Your task to perform on an android device: change the clock display to digital Image 0: 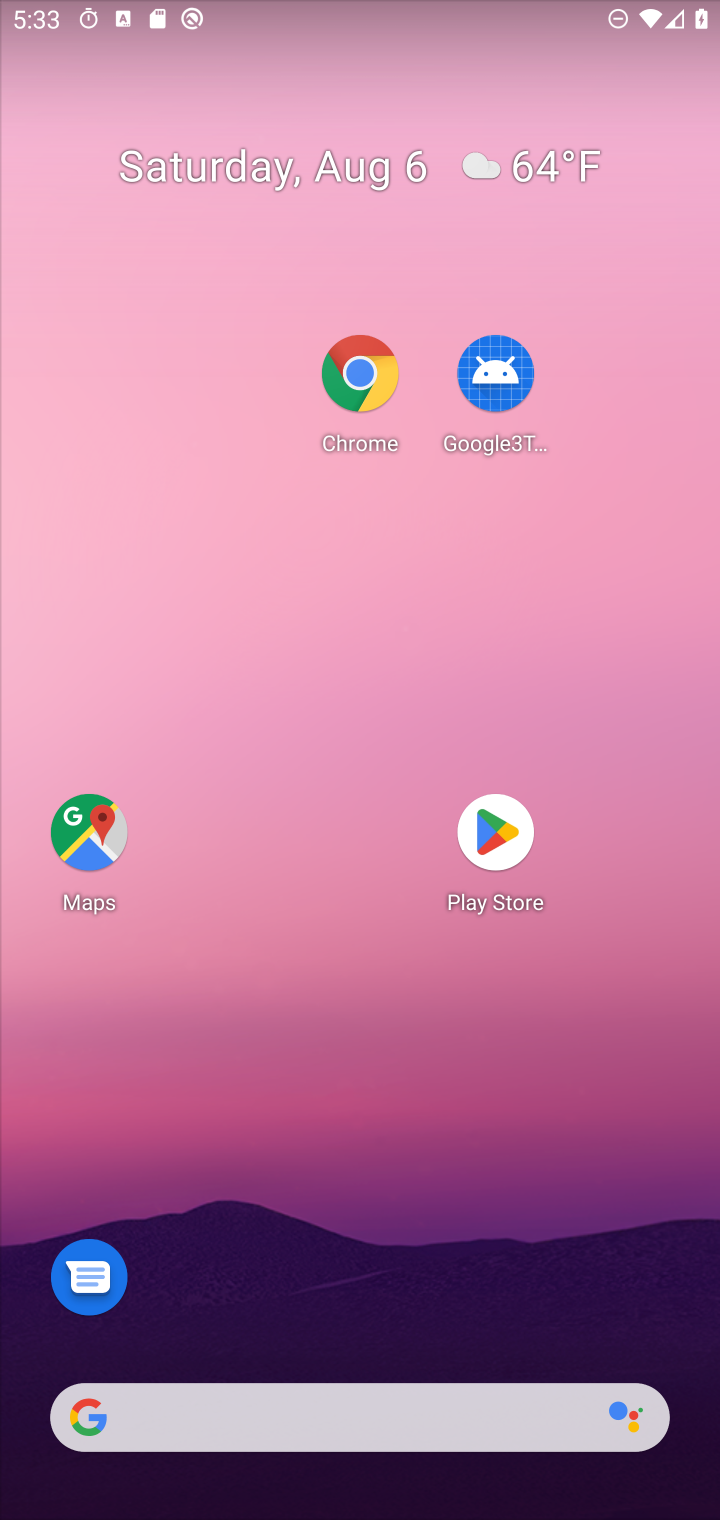
Step 0: drag from (439, 1448) to (439, 31)
Your task to perform on an android device: change the clock display to digital Image 1: 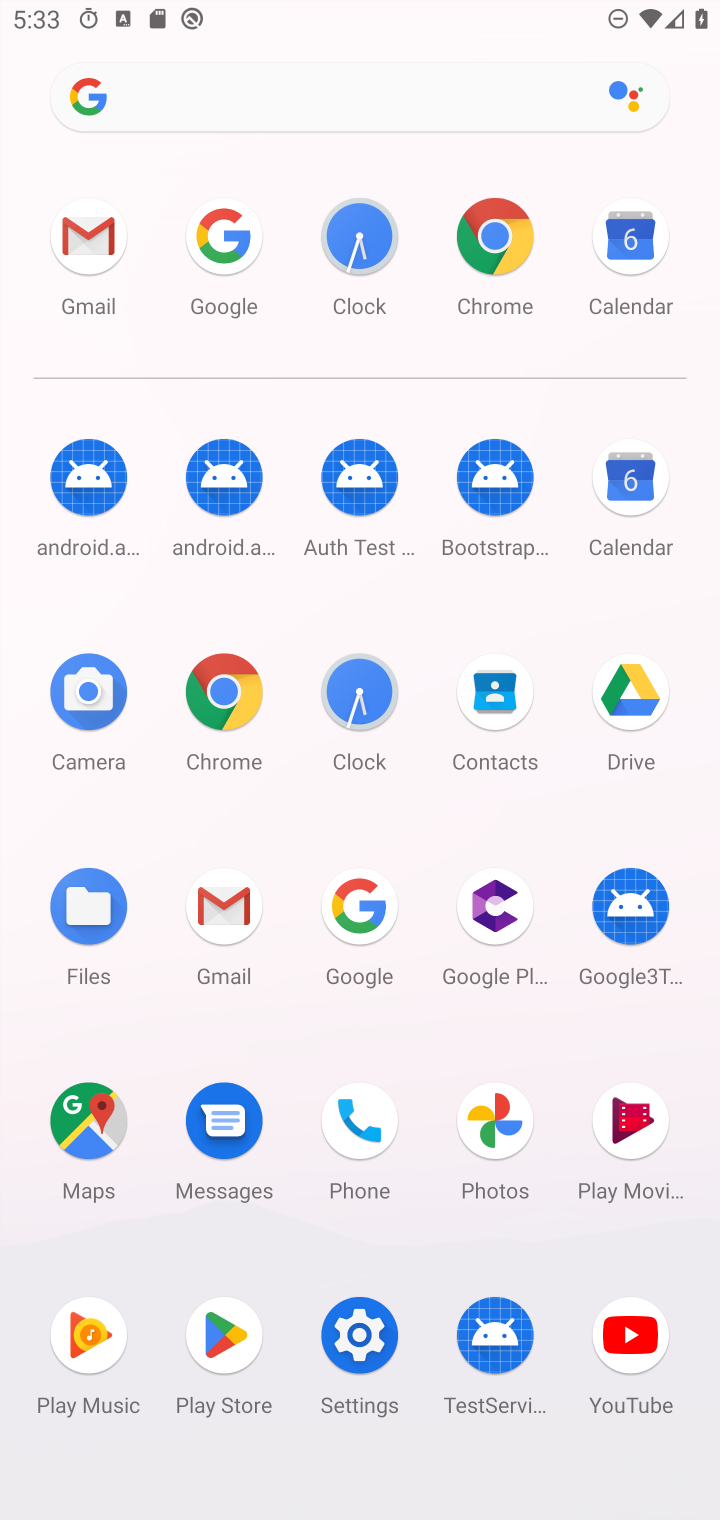
Step 1: click (366, 673)
Your task to perform on an android device: change the clock display to digital Image 2: 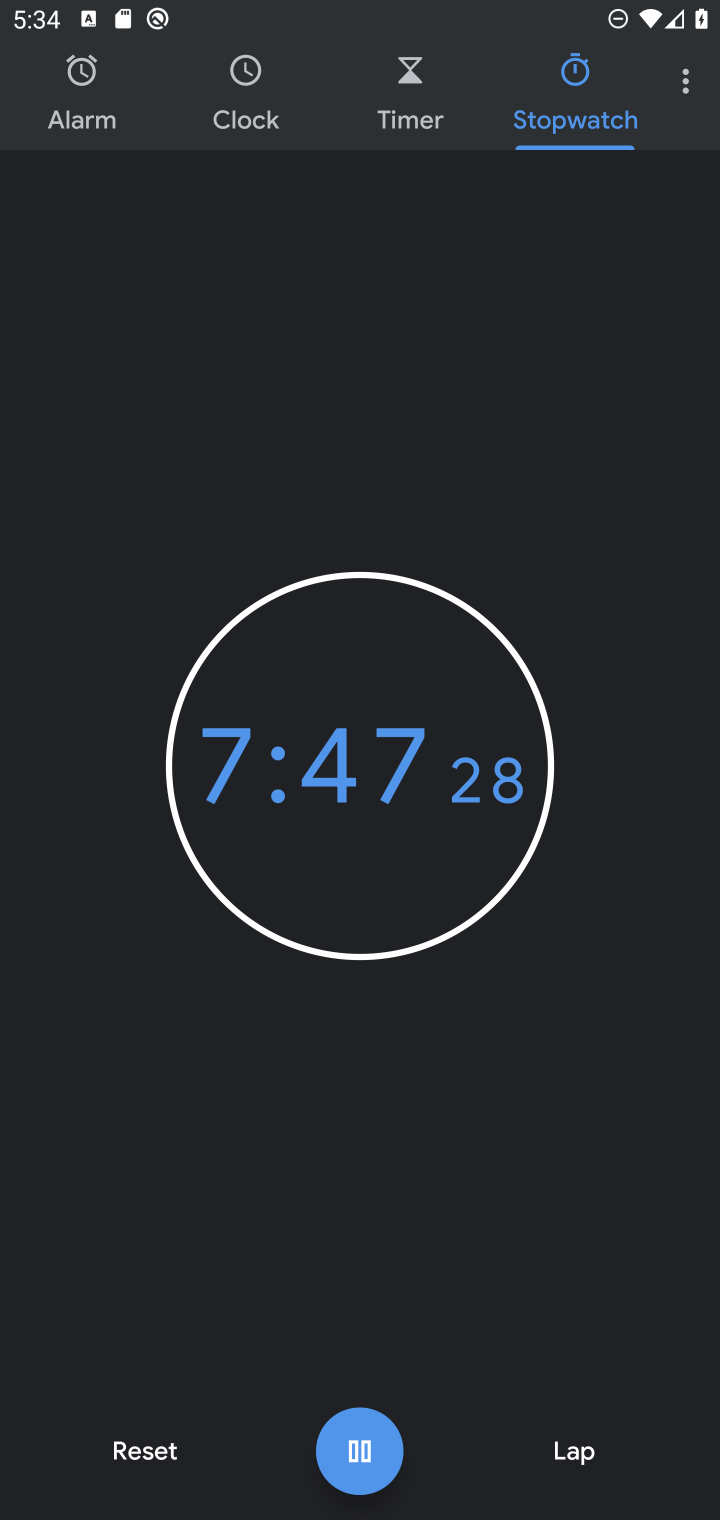
Step 2: click (686, 75)
Your task to perform on an android device: change the clock display to digital Image 3: 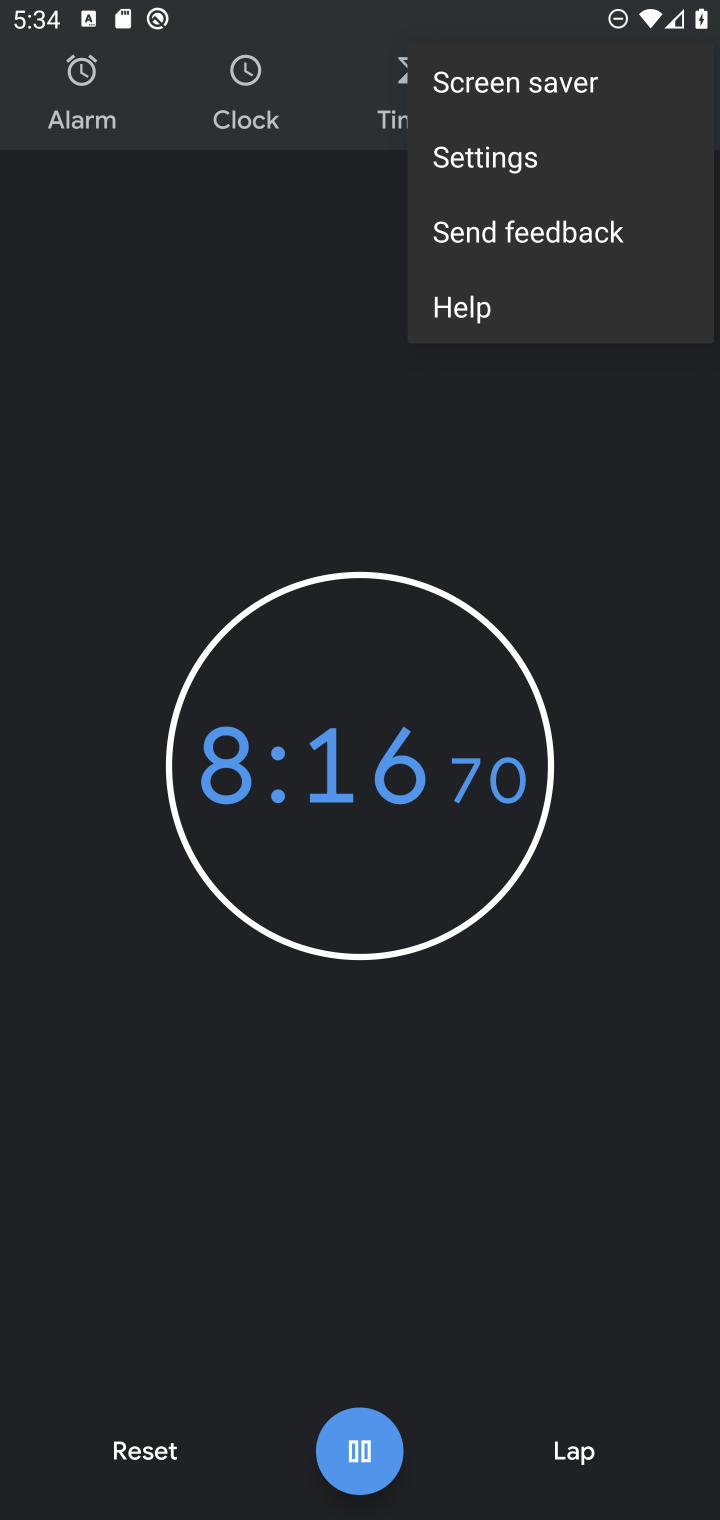
Step 3: click (475, 173)
Your task to perform on an android device: change the clock display to digital Image 4: 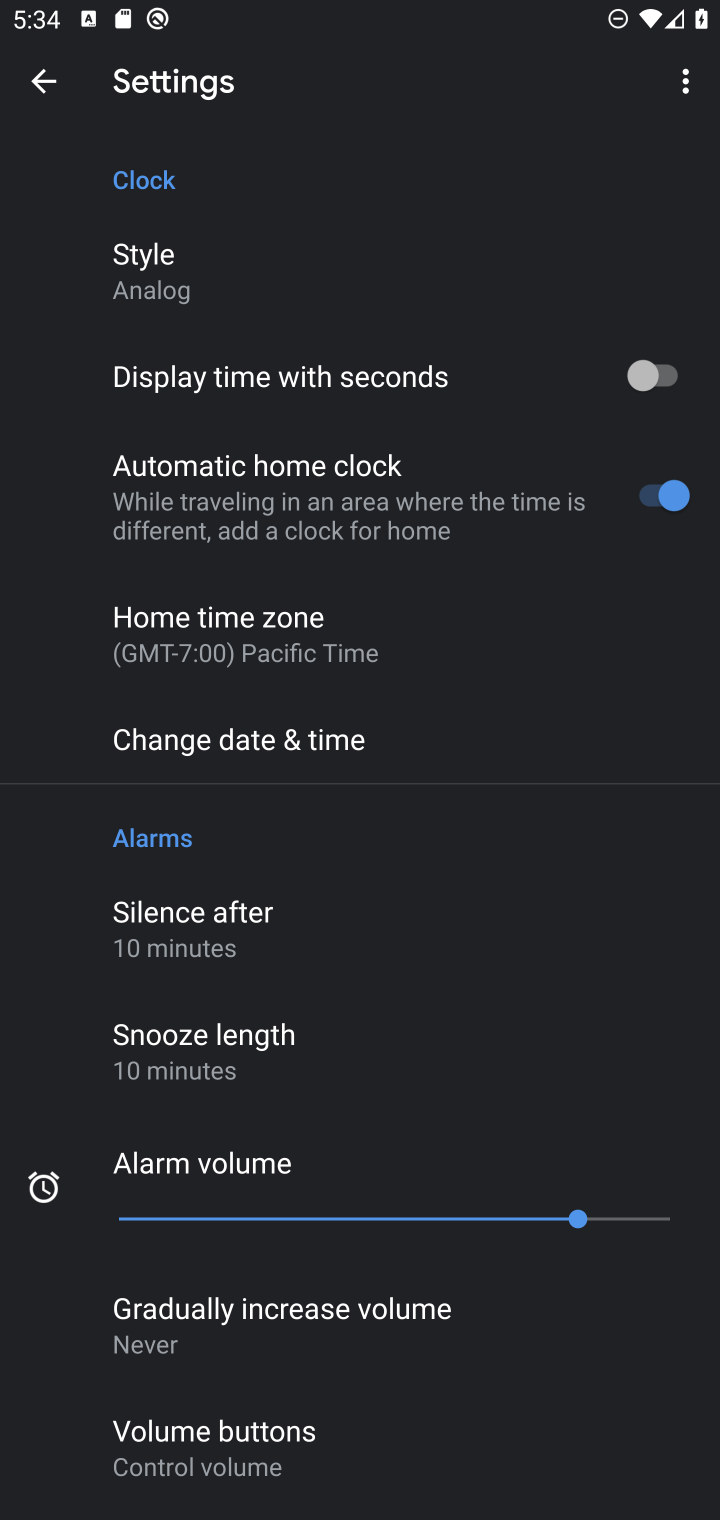
Step 4: click (153, 268)
Your task to perform on an android device: change the clock display to digital Image 5: 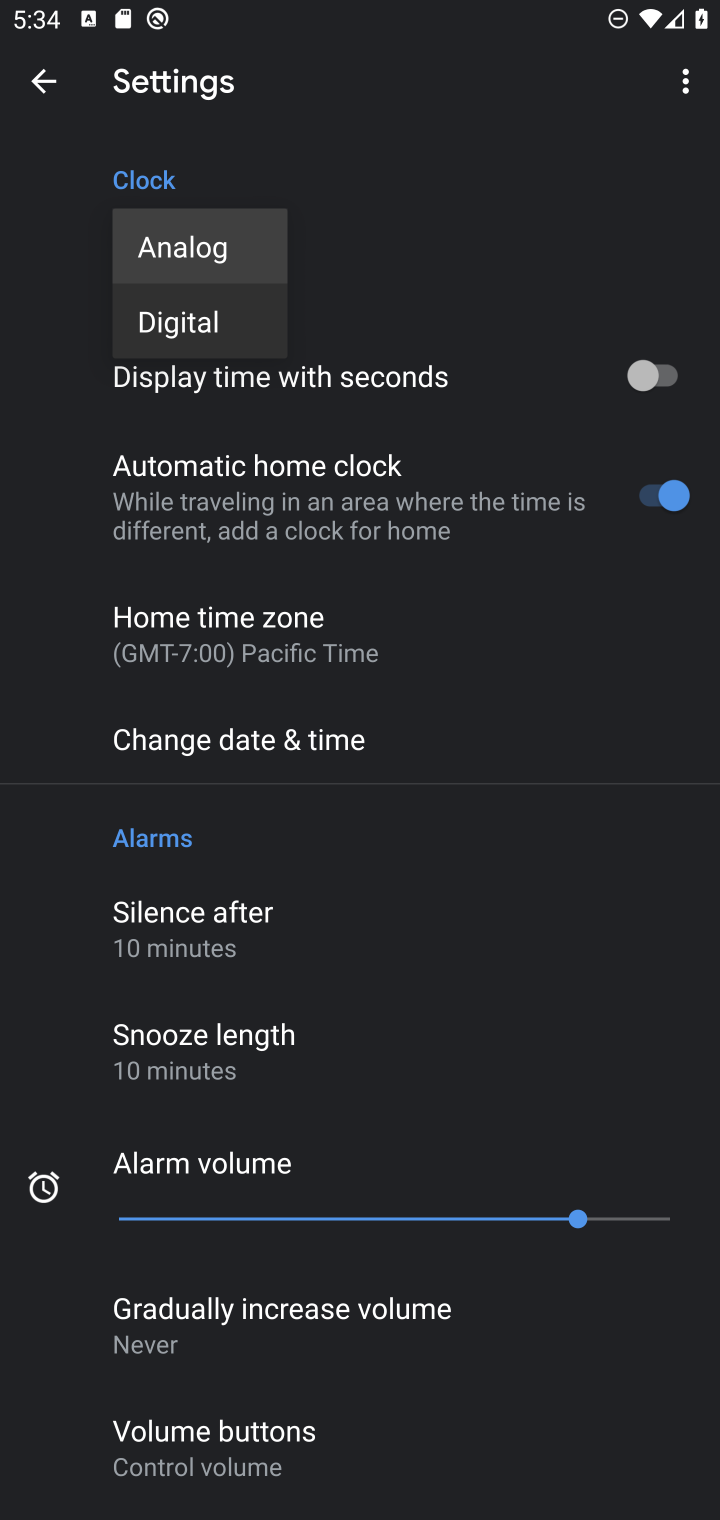
Step 5: click (236, 334)
Your task to perform on an android device: change the clock display to digital Image 6: 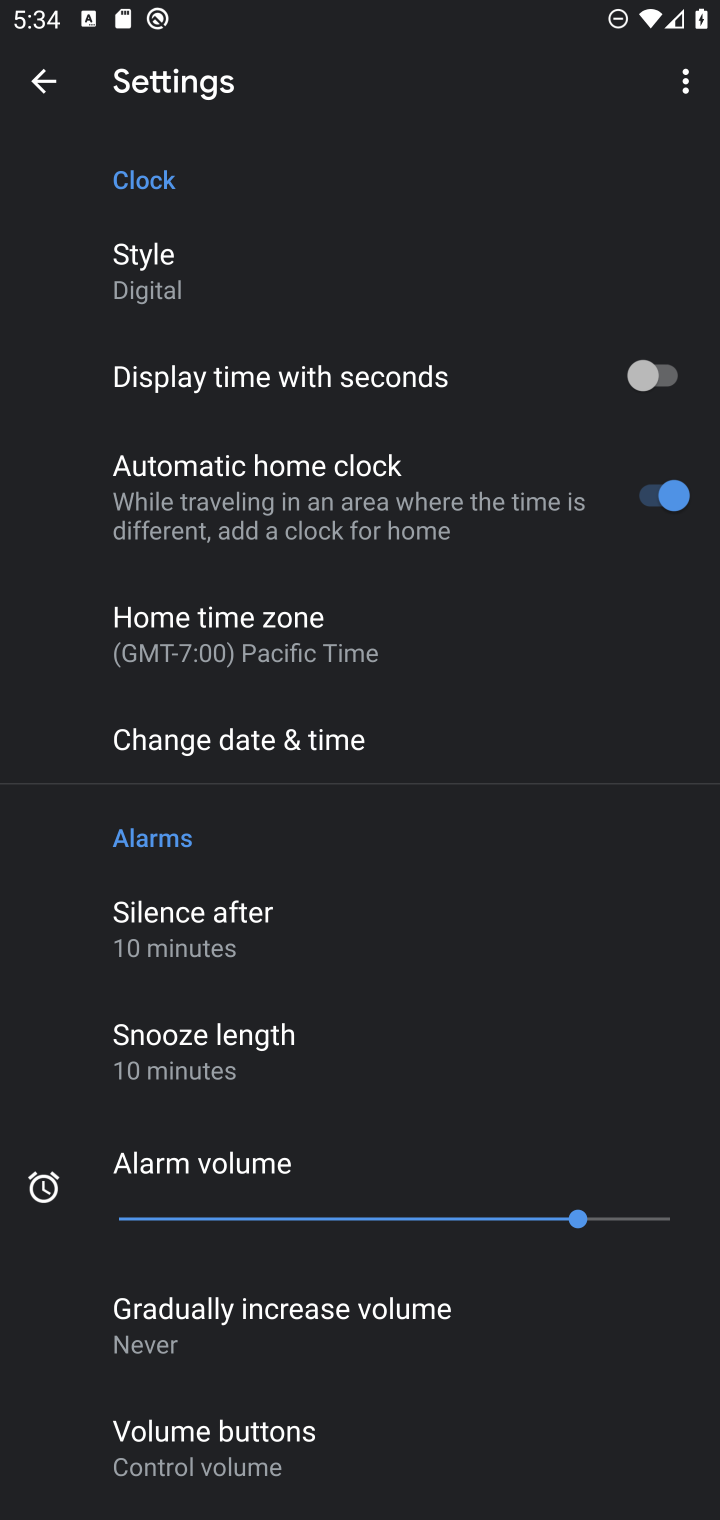
Step 6: task complete